Your task to perform on an android device: turn off priority inbox in the gmail app Image 0: 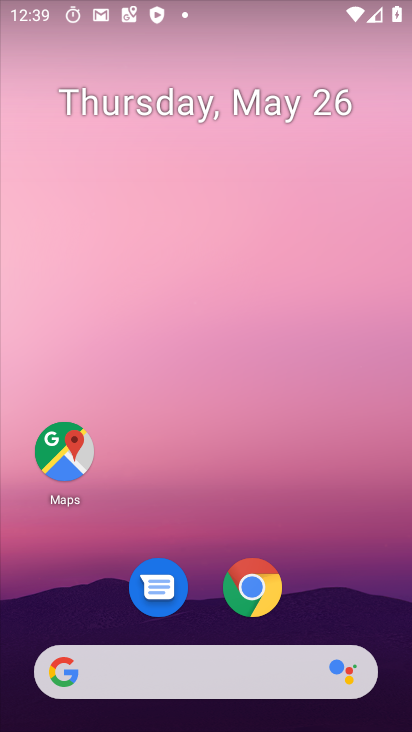
Step 0: drag from (269, 683) to (292, 107)
Your task to perform on an android device: turn off priority inbox in the gmail app Image 1: 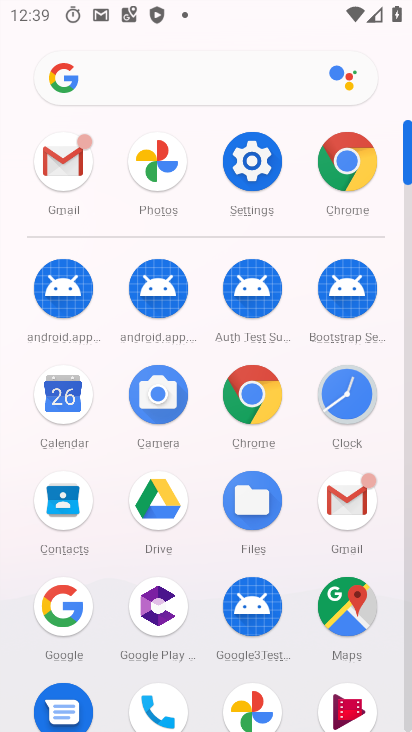
Step 1: click (70, 175)
Your task to perform on an android device: turn off priority inbox in the gmail app Image 2: 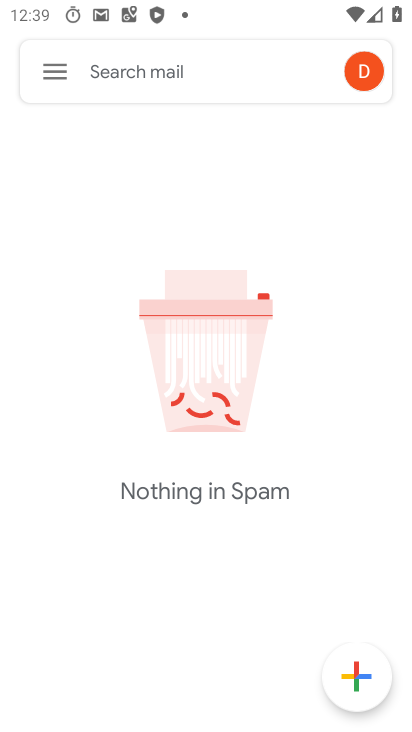
Step 2: click (48, 68)
Your task to perform on an android device: turn off priority inbox in the gmail app Image 3: 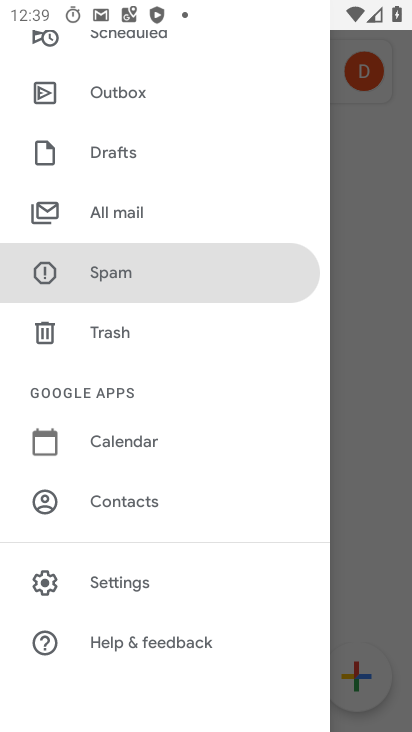
Step 3: click (164, 587)
Your task to perform on an android device: turn off priority inbox in the gmail app Image 4: 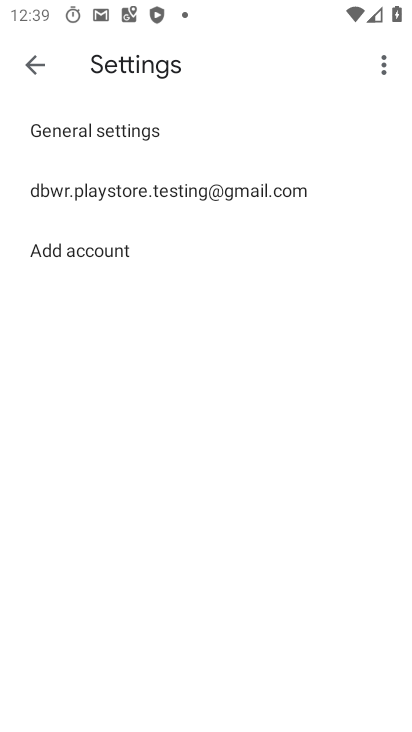
Step 4: click (134, 195)
Your task to perform on an android device: turn off priority inbox in the gmail app Image 5: 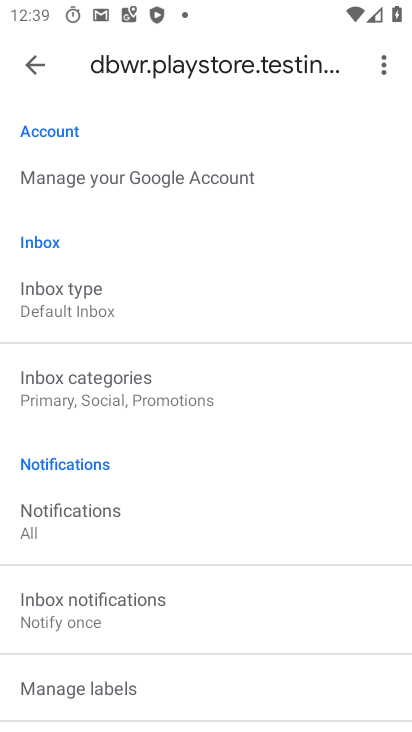
Step 5: click (127, 299)
Your task to perform on an android device: turn off priority inbox in the gmail app Image 6: 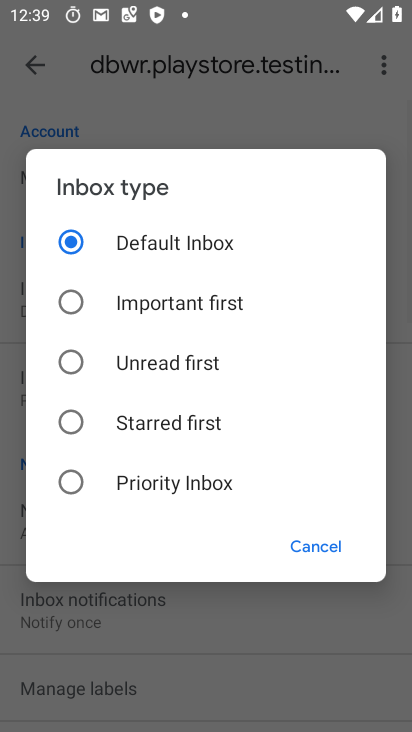
Step 6: click (194, 491)
Your task to perform on an android device: turn off priority inbox in the gmail app Image 7: 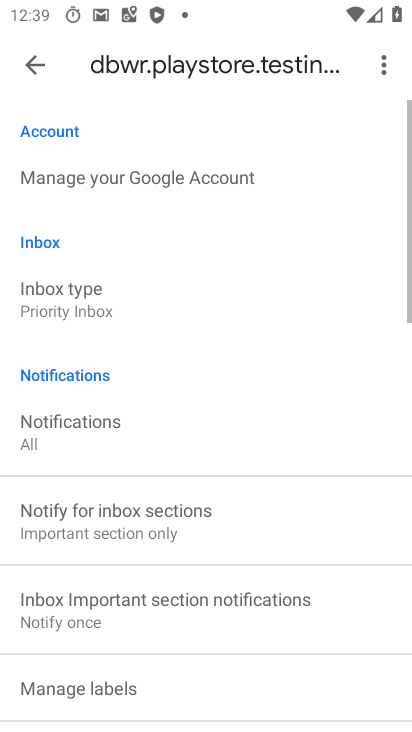
Step 7: click (119, 305)
Your task to perform on an android device: turn off priority inbox in the gmail app Image 8: 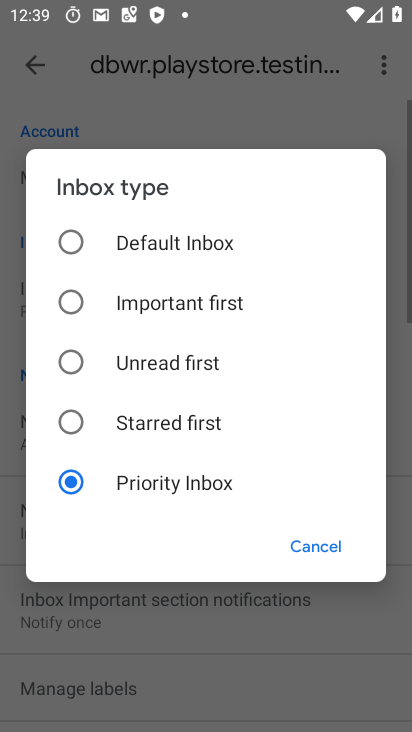
Step 8: task complete